Your task to perform on an android device: Go to Google Image 0: 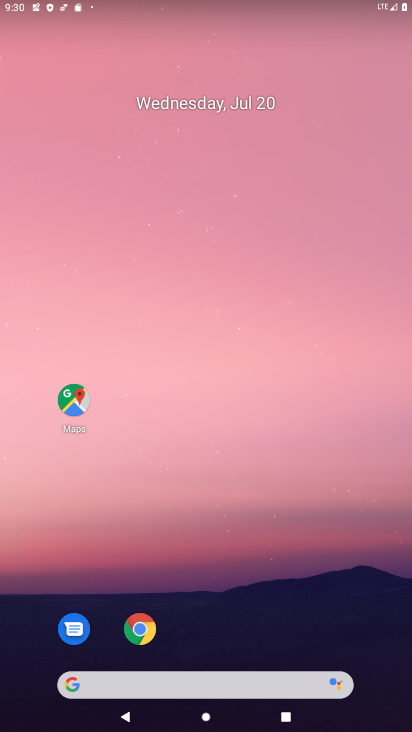
Step 0: drag from (325, 646) to (350, 90)
Your task to perform on an android device: Go to Google Image 1: 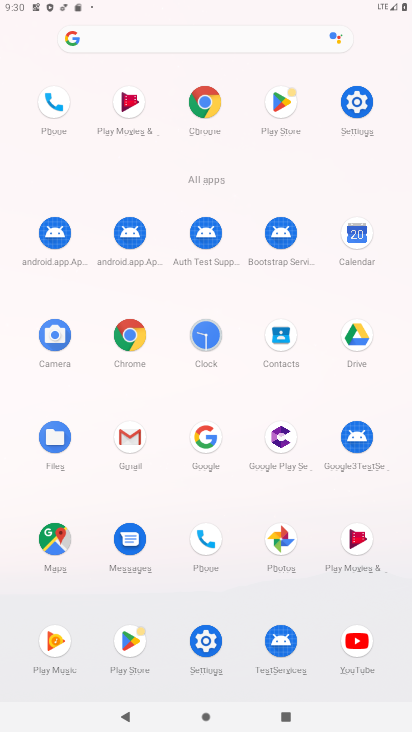
Step 1: click (216, 428)
Your task to perform on an android device: Go to Google Image 2: 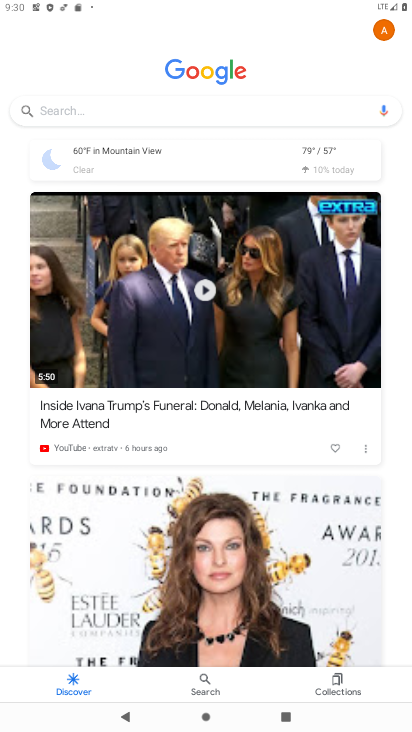
Step 2: task complete